Your task to perform on an android device: turn off translation in the chrome app Image 0: 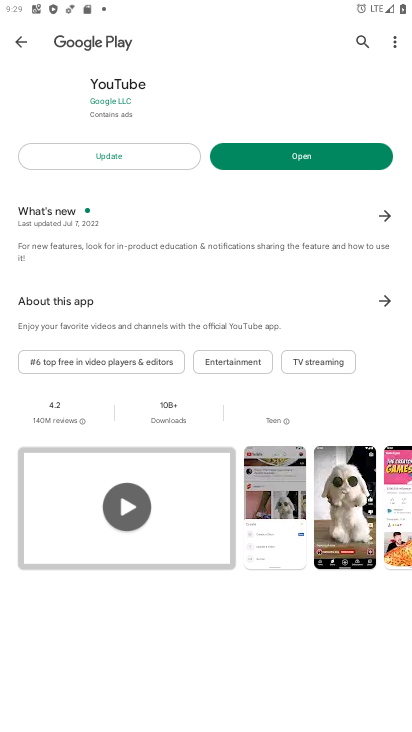
Step 0: press home button
Your task to perform on an android device: turn off translation in the chrome app Image 1: 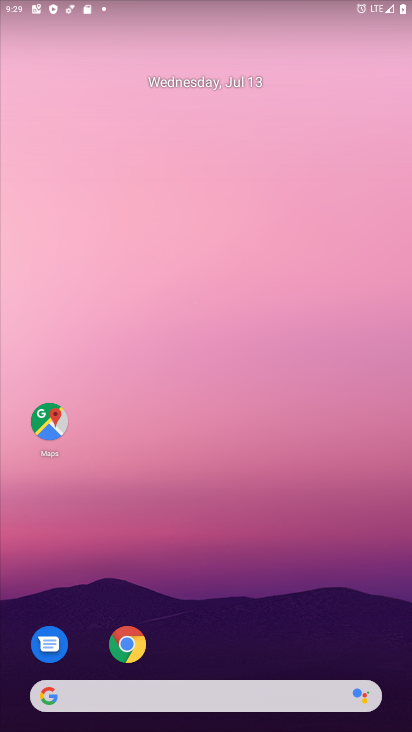
Step 1: drag from (208, 723) to (193, 69)
Your task to perform on an android device: turn off translation in the chrome app Image 2: 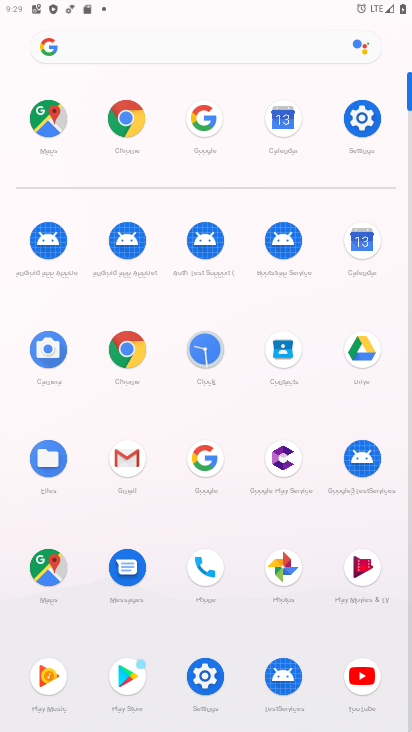
Step 2: click (124, 114)
Your task to perform on an android device: turn off translation in the chrome app Image 3: 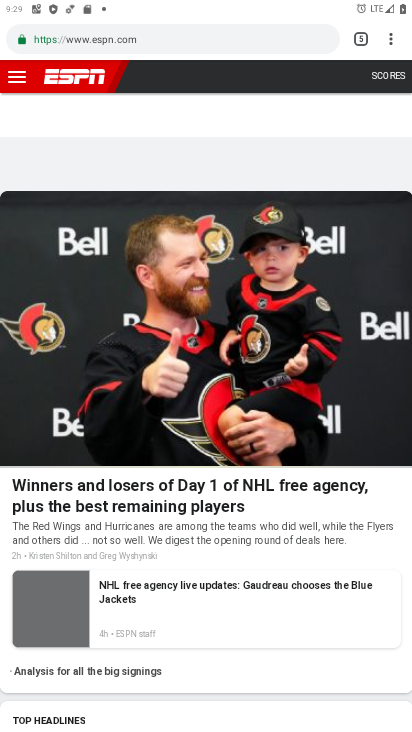
Step 3: click (391, 43)
Your task to perform on an android device: turn off translation in the chrome app Image 4: 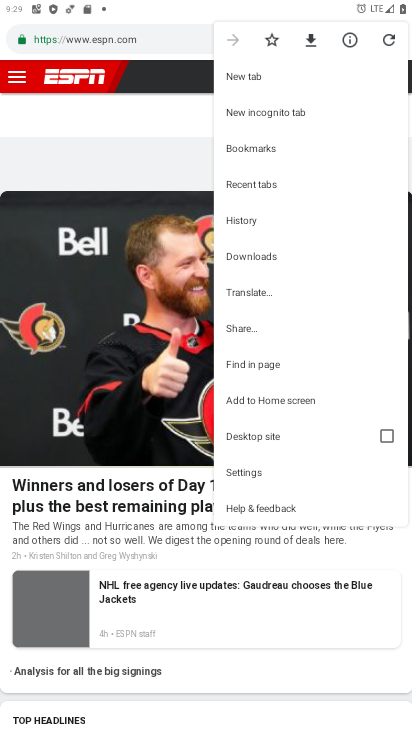
Step 4: click (243, 466)
Your task to perform on an android device: turn off translation in the chrome app Image 5: 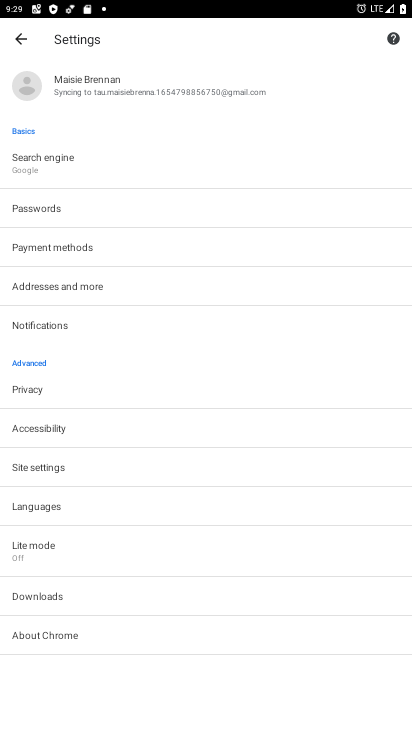
Step 5: click (53, 508)
Your task to perform on an android device: turn off translation in the chrome app Image 6: 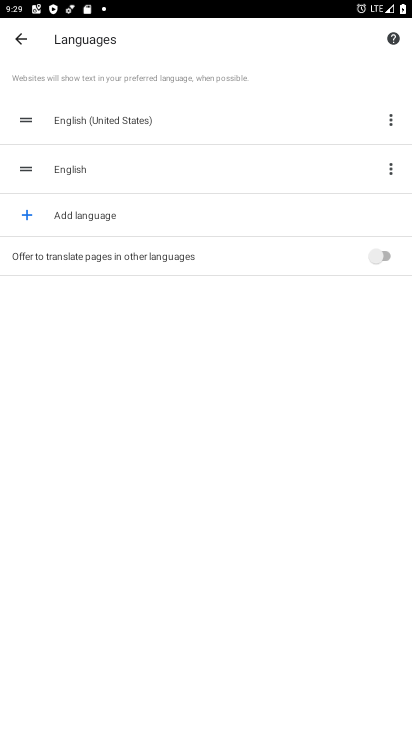
Step 6: task complete